Your task to perform on an android device: see sites visited before in the chrome app Image 0: 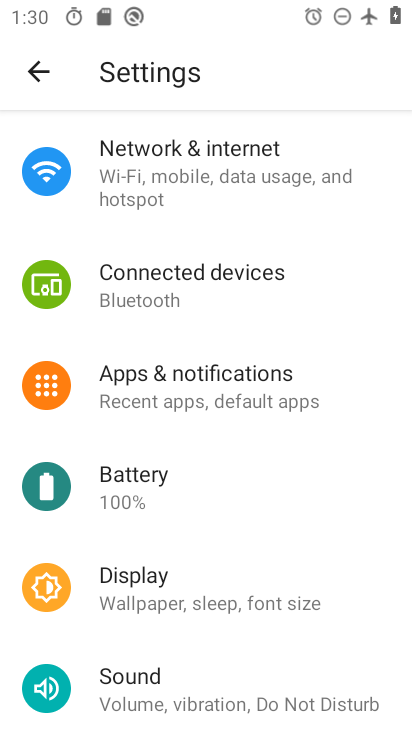
Step 0: press home button
Your task to perform on an android device: see sites visited before in the chrome app Image 1: 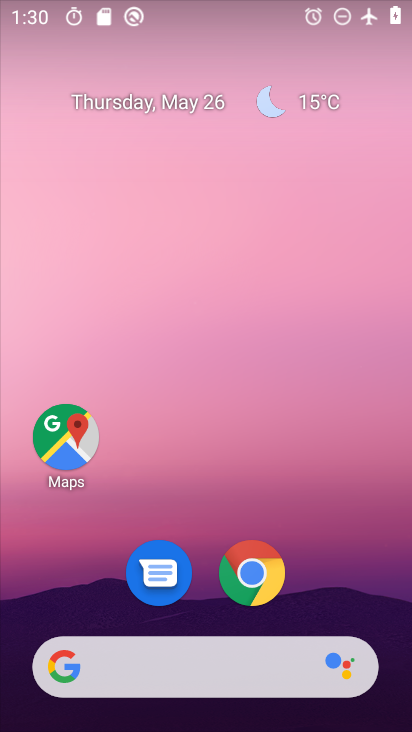
Step 1: click (261, 585)
Your task to perform on an android device: see sites visited before in the chrome app Image 2: 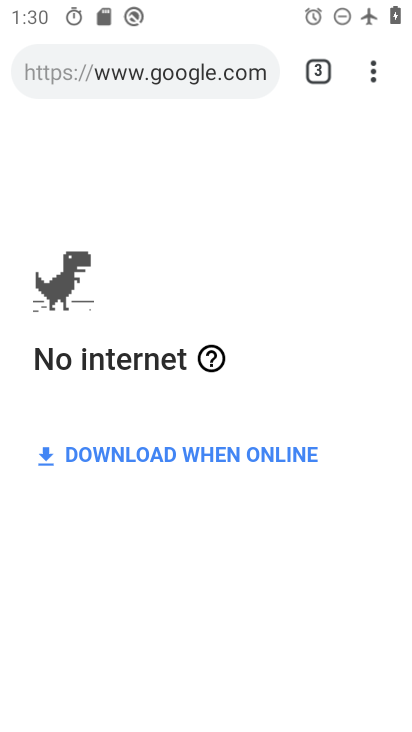
Step 2: click (375, 72)
Your task to perform on an android device: see sites visited before in the chrome app Image 3: 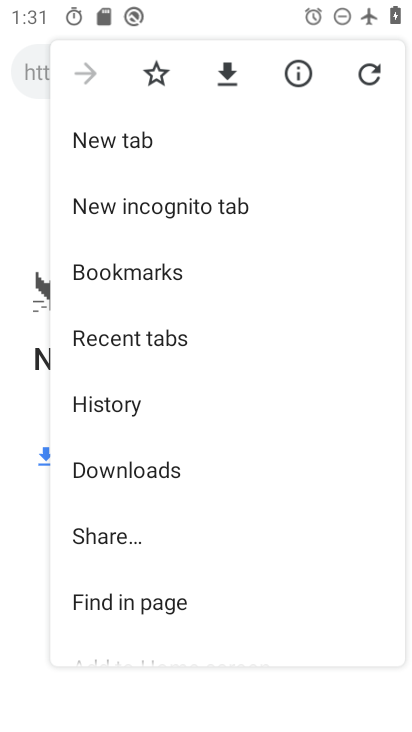
Step 3: click (77, 407)
Your task to perform on an android device: see sites visited before in the chrome app Image 4: 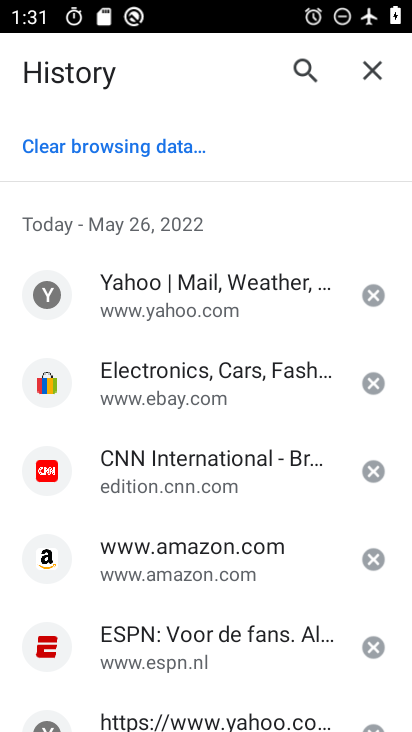
Step 4: task complete